Your task to perform on an android device: Go to battery settings Image 0: 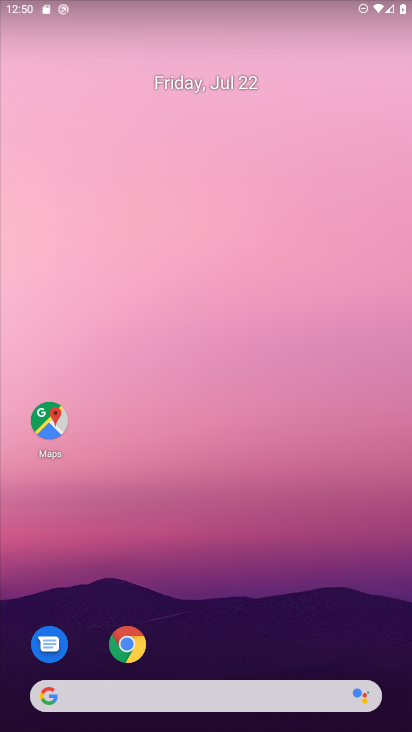
Step 0: drag from (168, 7) to (181, 396)
Your task to perform on an android device: Go to battery settings Image 1: 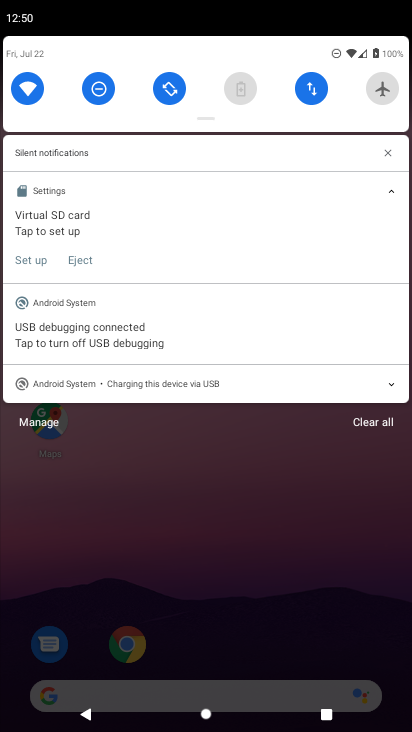
Step 1: click (253, 94)
Your task to perform on an android device: Go to battery settings Image 2: 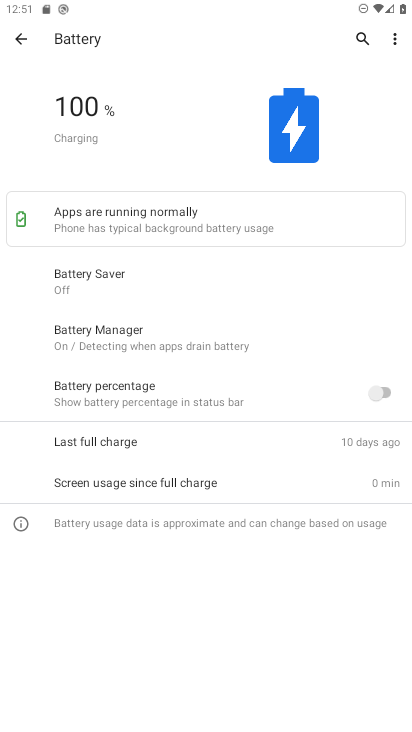
Step 2: task complete